Your task to perform on an android device: Open Reddit.com Image 0: 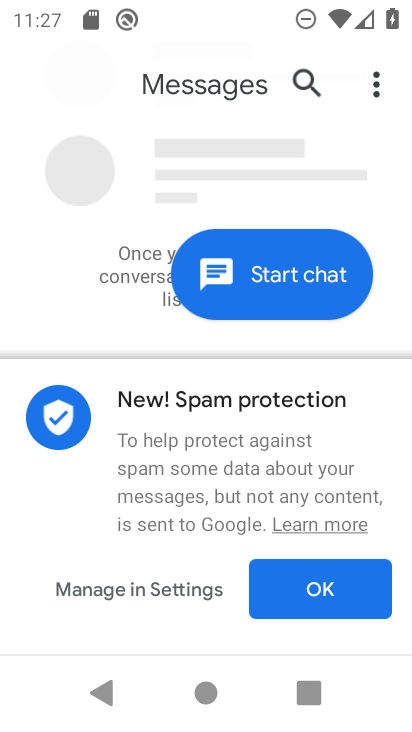
Step 0: press home button
Your task to perform on an android device: Open Reddit.com Image 1: 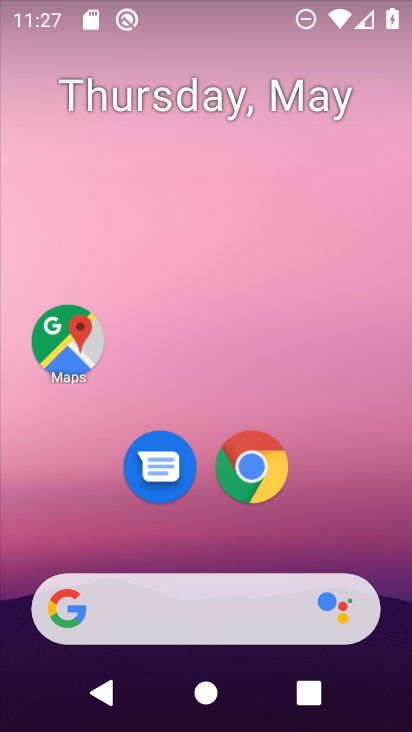
Step 1: drag from (239, 562) to (226, 138)
Your task to perform on an android device: Open Reddit.com Image 2: 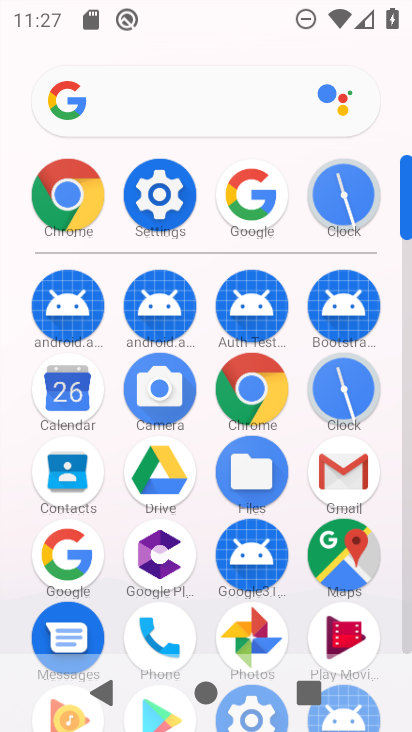
Step 2: click (272, 402)
Your task to perform on an android device: Open Reddit.com Image 3: 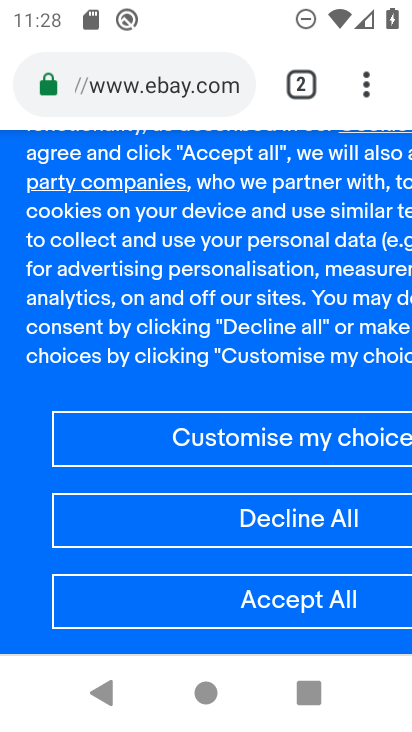
Step 3: click (291, 85)
Your task to perform on an android device: Open Reddit.com Image 4: 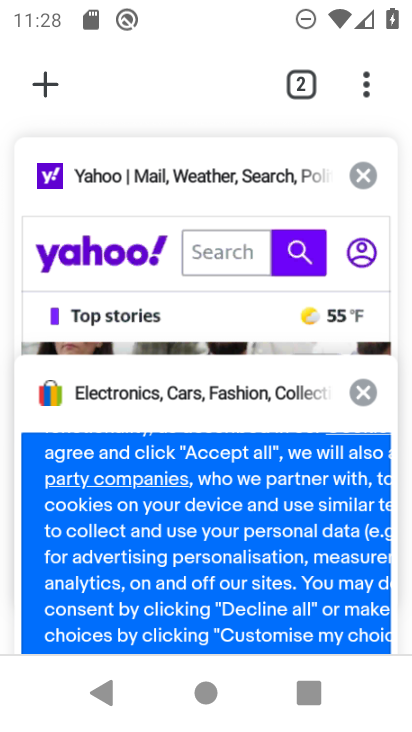
Step 4: click (53, 94)
Your task to perform on an android device: Open Reddit.com Image 5: 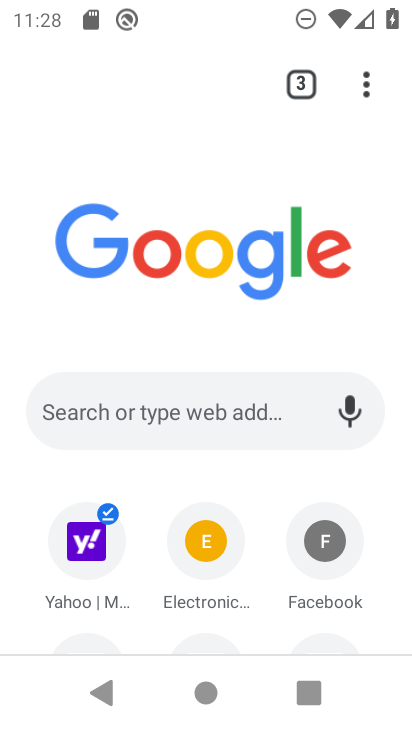
Step 5: click (181, 426)
Your task to perform on an android device: Open Reddit.com Image 6: 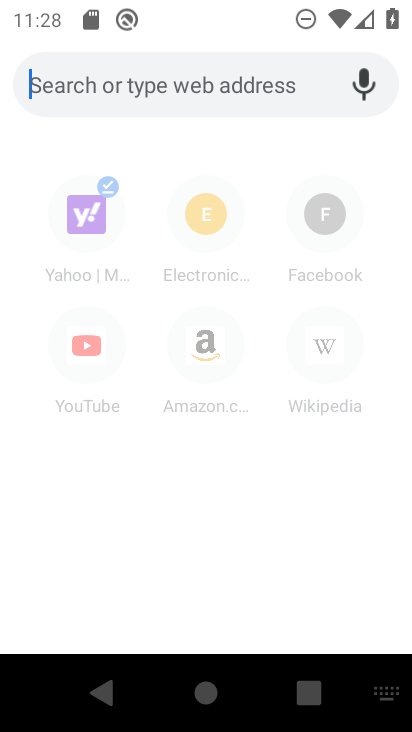
Step 6: type "reddit.com"
Your task to perform on an android device: Open Reddit.com Image 7: 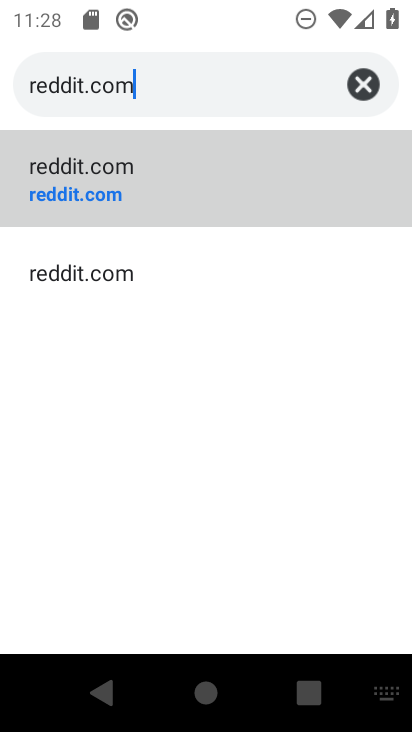
Step 7: type ""
Your task to perform on an android device: Open Reddit.com Image 8: 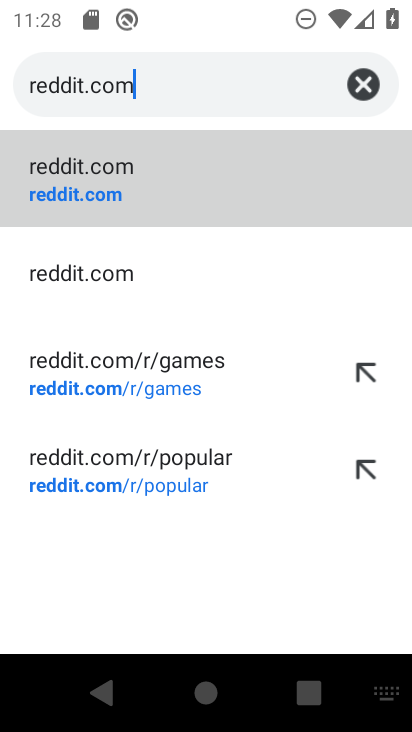
Step 8: click (232, 168)
Your task to perform on an android device: Open Reddit.com Image 9: 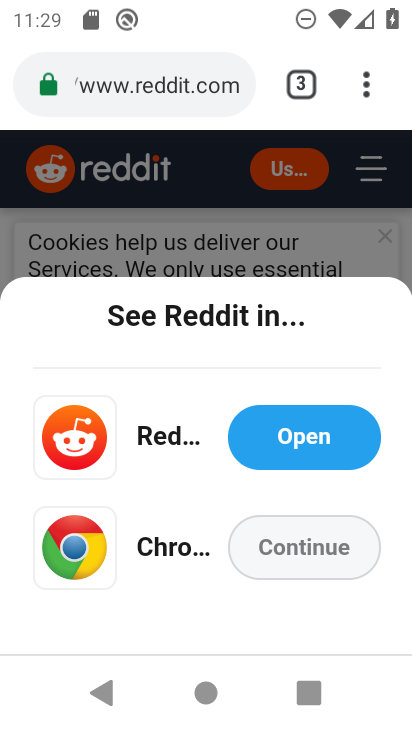
Step 9: click (302, 564)
Your task to perform on an android device: Open Reddit.com Image 10: 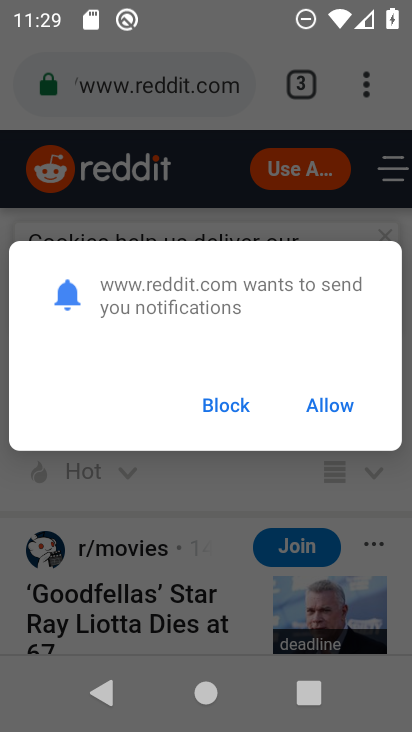
Step 10: task complete